Your task to perform on an android device: turn off sleep mode Image 0: 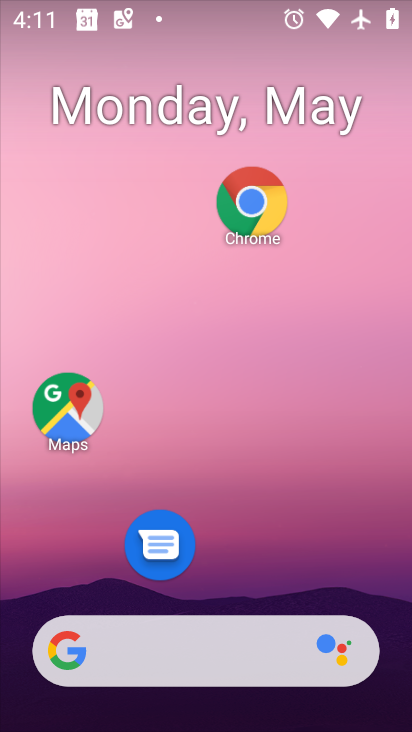
Step 0: drag from (269, 557) to (284, 107)
Your task to perform on an android device: turn off sleep mode Image 1: 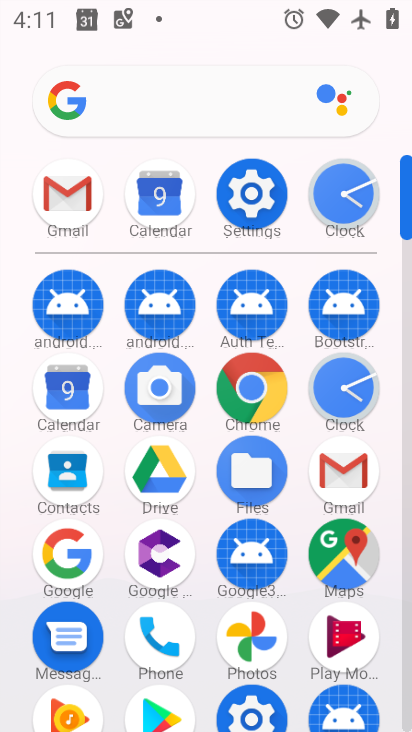
Step 1: click (264, 183)
Your task to perform on an android device: turn off sleep mode Image 2: 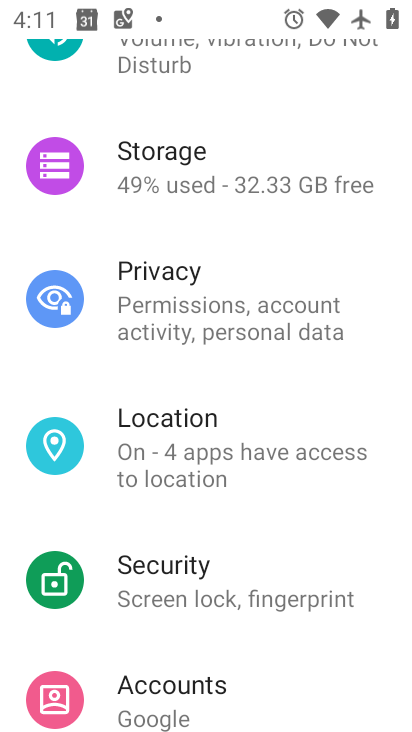
Step 2: drag from (240, 278) to (249, 582)
Your task to perform on an android device: turn off sleep mode Image 3: 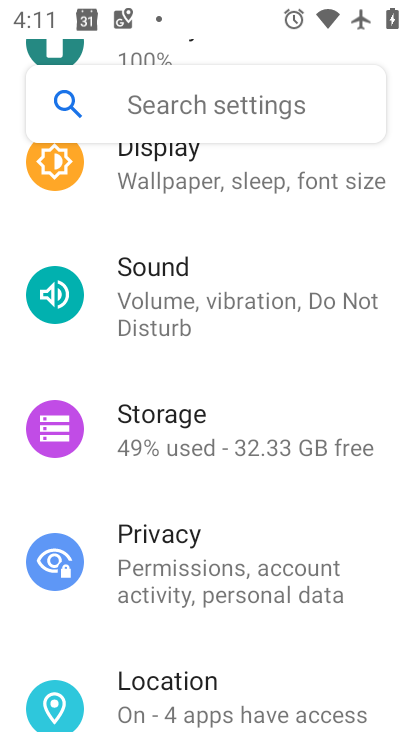
Step 3: click (188, 182)
Your task to perform on an android device: turn off sleep mode Image 4: 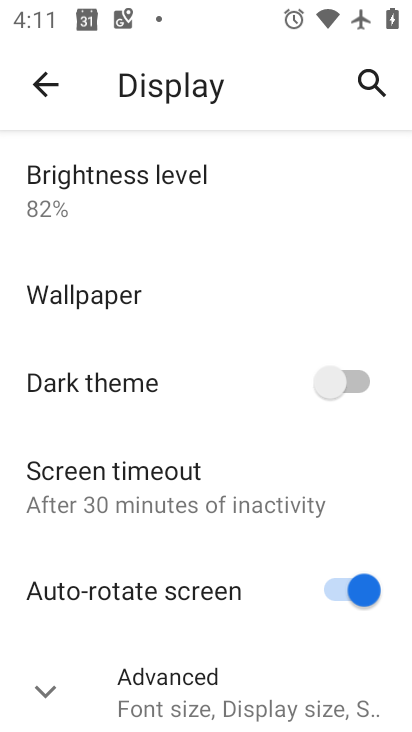
Step 4: drag from (145, 648) to (201, 382)
Your task to perform on an android device: turn off sleep mode Image 5: 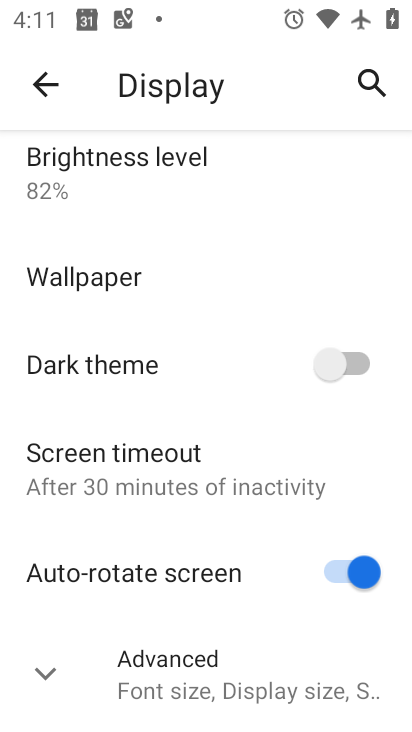
Step 5: click (170, 649)
Your task to perform on an android device: turn off sleep mode Image 6: 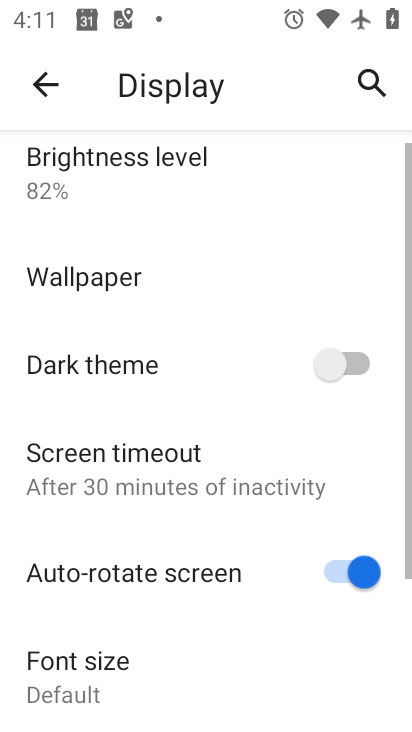
Step 6: drag from (170, 649) to (210, 351)
Your task to perform on an android device: turn off sleep mode Image 7: 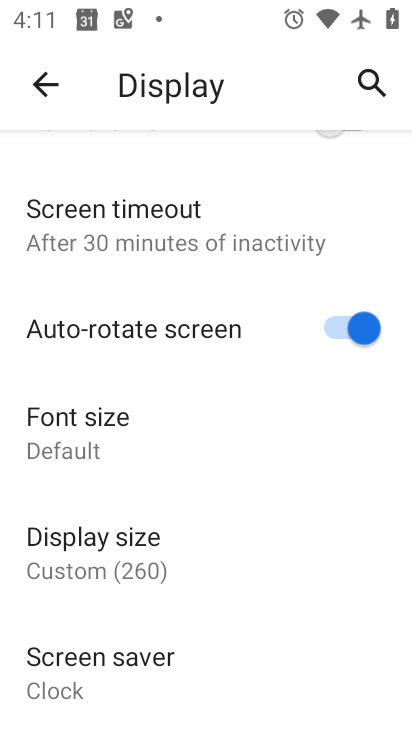
Step 7: click (129, 243)
Your task to perform on an android device: turn off sleep mode Image 8: 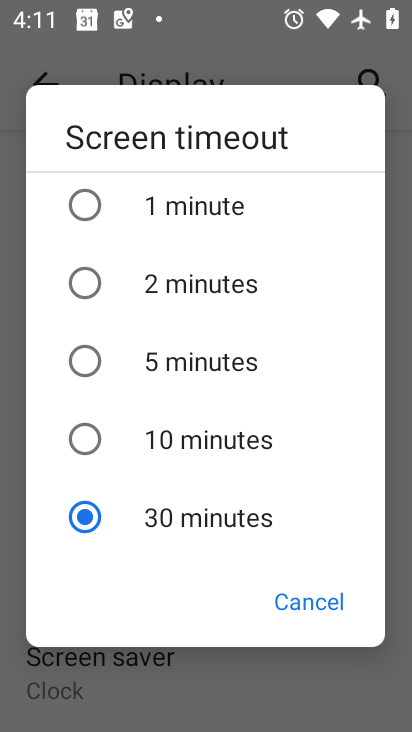
Step 8: click (148, 358)
Your task to perform on an android device: turn off sleep mode Image 9: 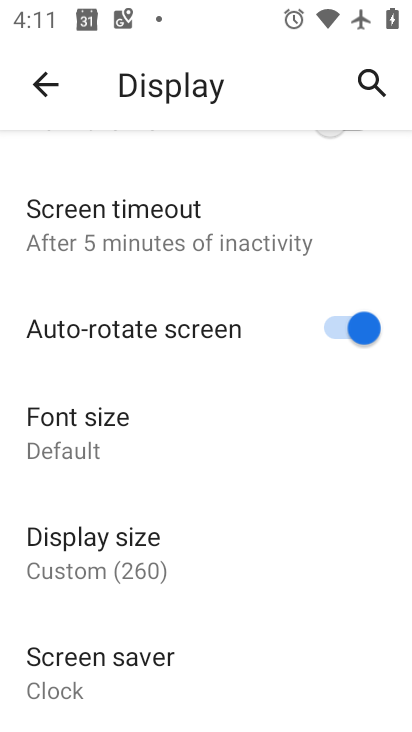
Step 9: task complete